Your task to perform on an android device: empty trash in the gmail app Image 0: 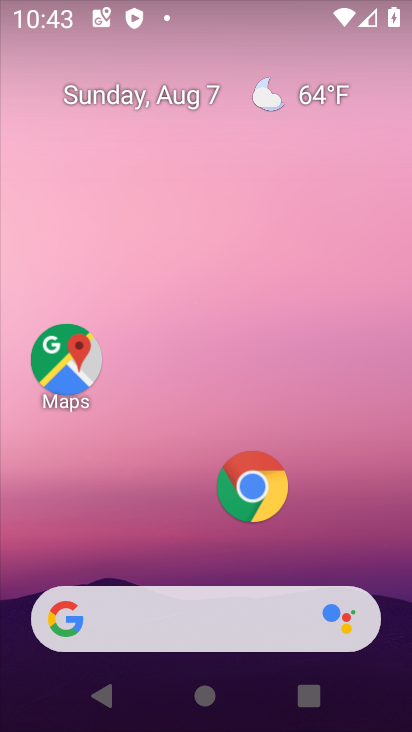
Step 0: drag from (244, 692) to (258, 250)
Your task to perform on an android device: empty trash in the gmail app Image 1: 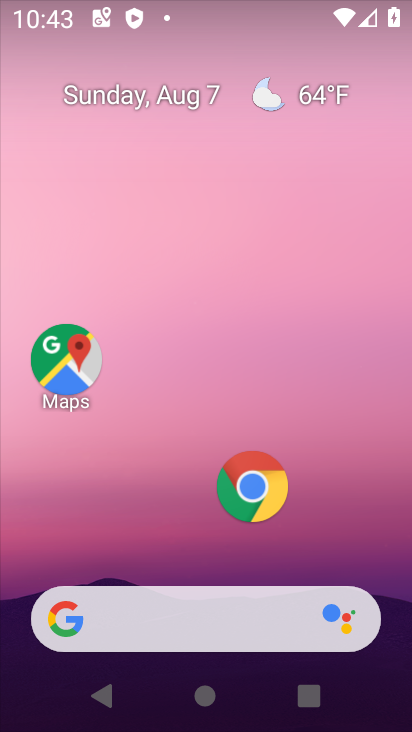
Step 1: drag from (251, 701) to (257, 134)
Your task to perform on an android device: empty trash in the gmail app Image 2: 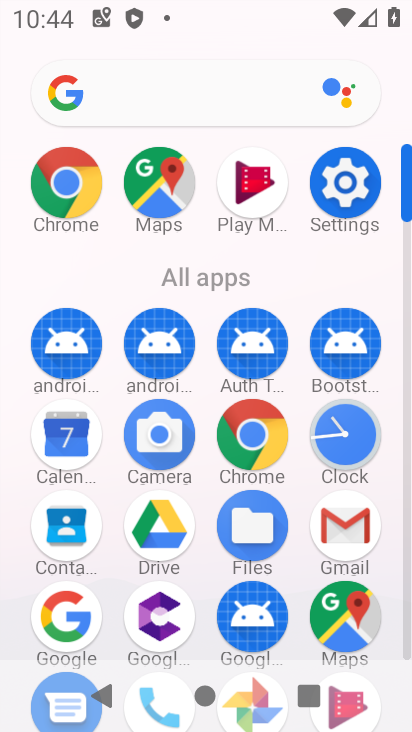
Step 2: click (342, 524)
Your task to perform on an android device: empty trash in the gmail app Image 3: 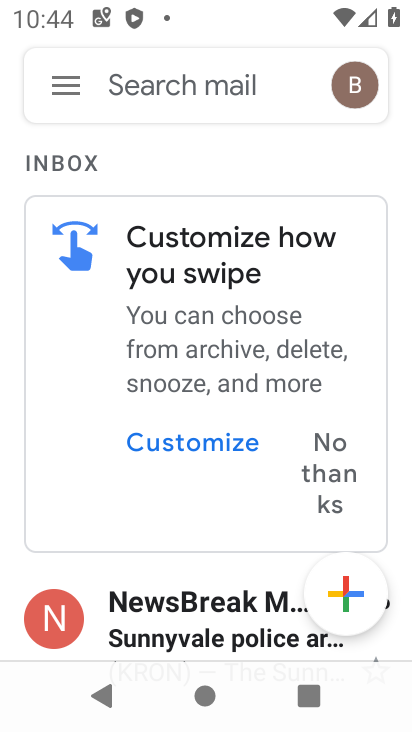
Step 3: click (59, 90)
Your task to perform on an android device: empty trash in the gmail app Image 4: 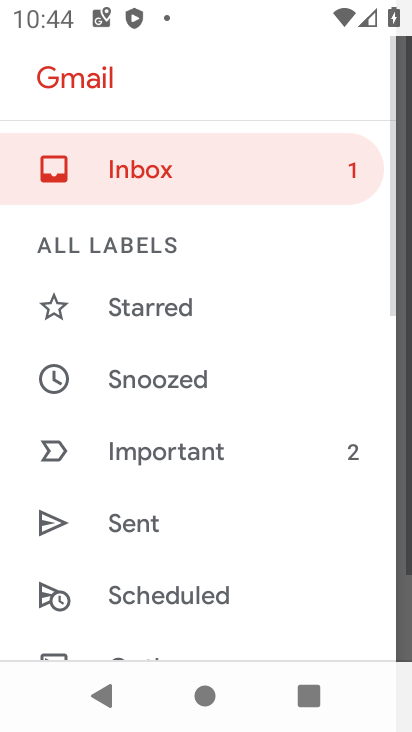
Step 4: drag from (165, 627) to (129, 155)
Your task to perform on an android device: empty trash in the gmail app Image 5: 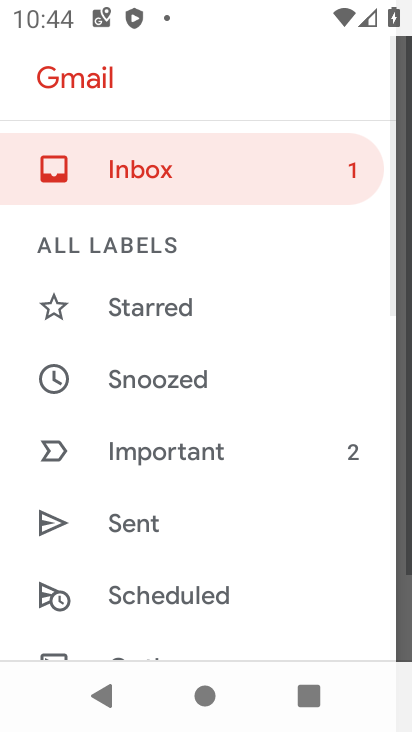
Step 5: drag from (216, 534) to (257, 11)
Your task to perform on an android device: empty trash in the gmail app Image 6: 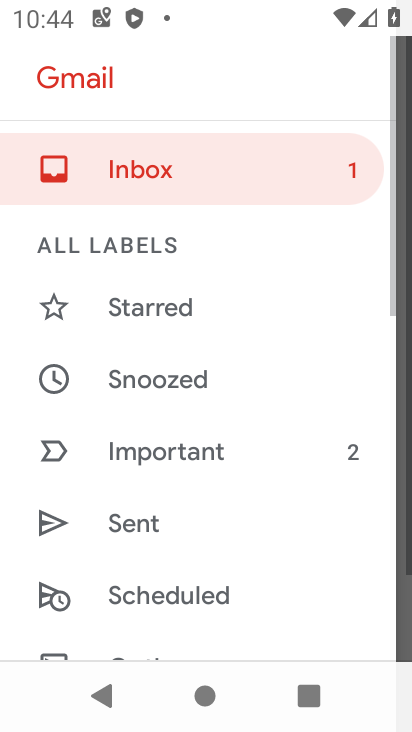
Step 6: drag from (83, 563) to (129, 129)
Your task to perform on an android device: empty trash in the gmail app Image 7: 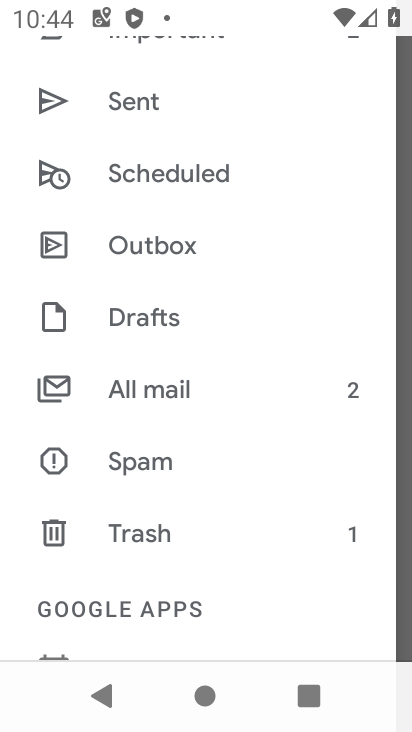
Step 7: click (166, 526)
Your task to perform on an android device: empty trash in the gmail app Image 8: 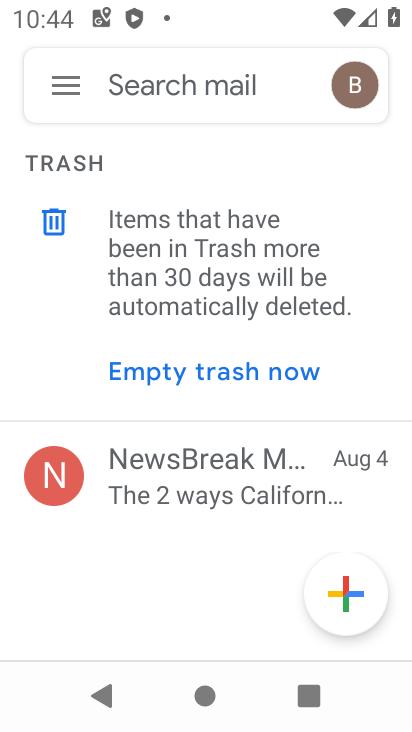
Step 8: click (291, 374)
Your task to perform on an android device: empty trash in the gmail app Image 9: 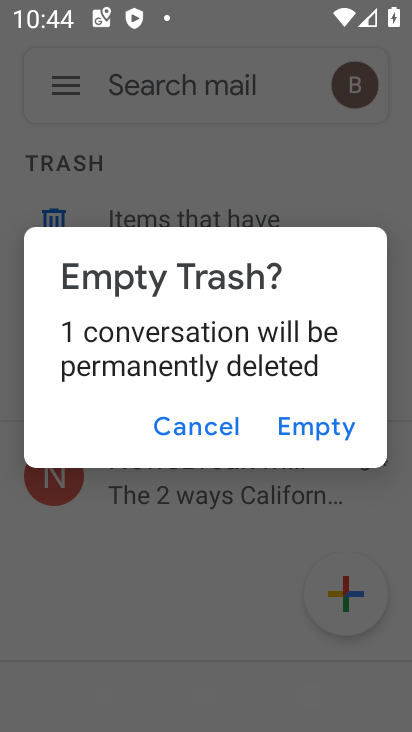
Step 9: click (325, 427)
Your task to perform on an android device: empty trash in the gmail app Image 10: 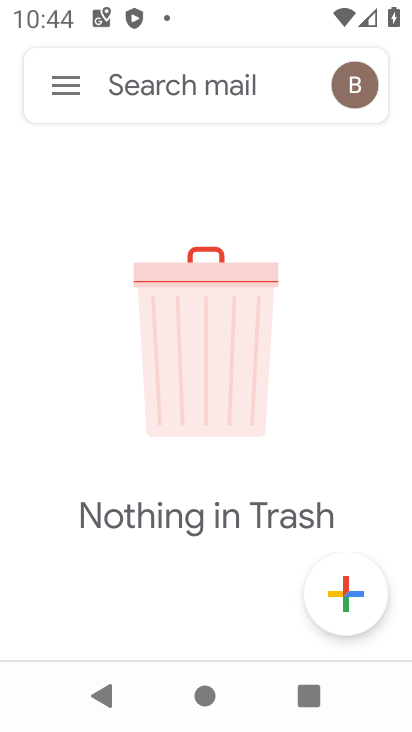
Step 10: task complete